Your task to perform on an android device: delete location history Image 0: 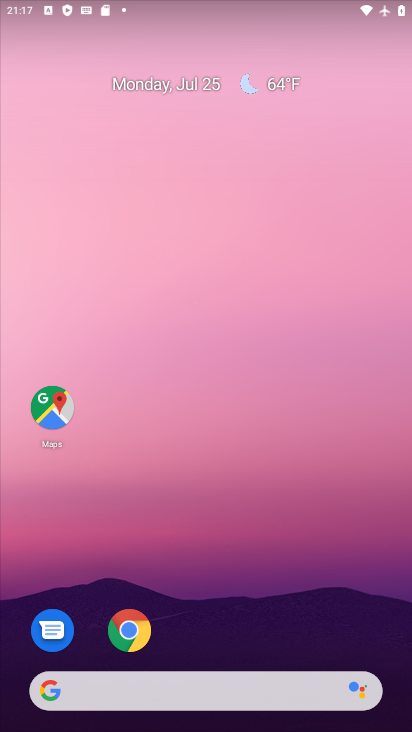
Step 0: click (57, 410)
Your task to perform on an android device: delete location history Image 1: 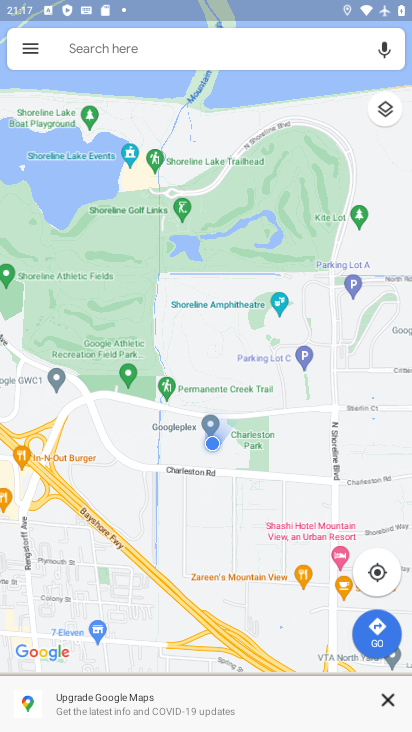
Step 1: click (28, 46)
Your task to perform on an android device: delete location history Image 2: 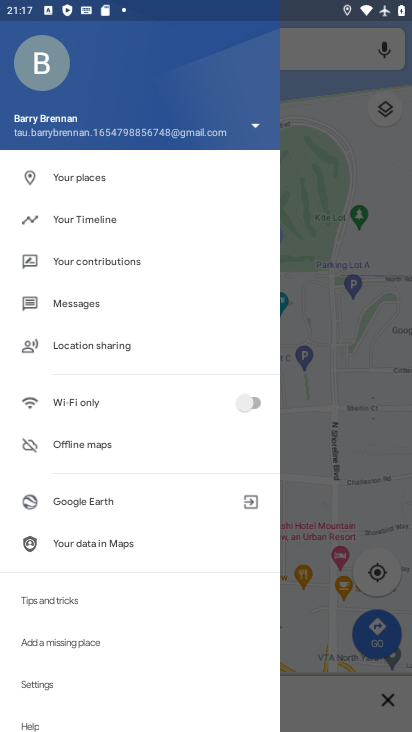
Step 2: click (31, 683)
Your task to perform on an android device: delete location history Image 3: 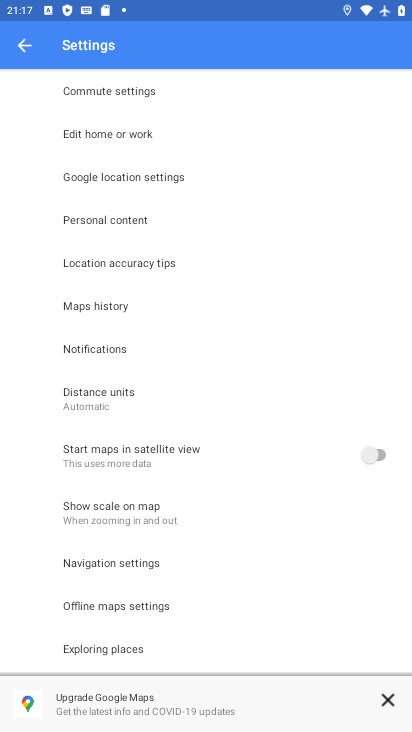
Step 3: click (105, 215)
Your task to perform on an android device: delete location history Image 4: 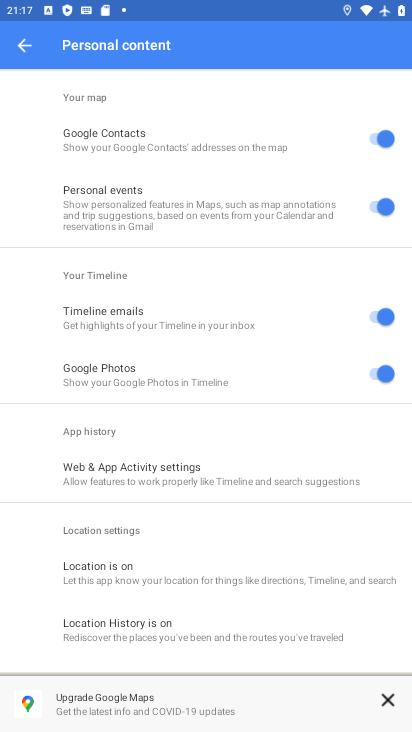
Step 4: drag from (204, 582) to (217, 239)
Your task to perform on an android device: delete location history Image 5: 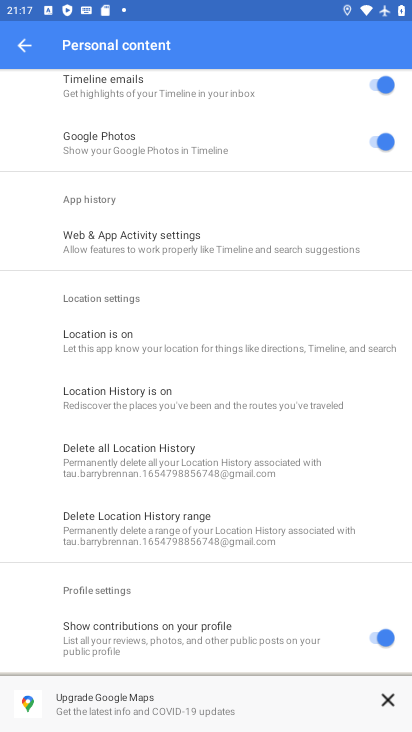
Step 5: click (123, 456)
Your task to perform on an android device: delete location history Image 6: 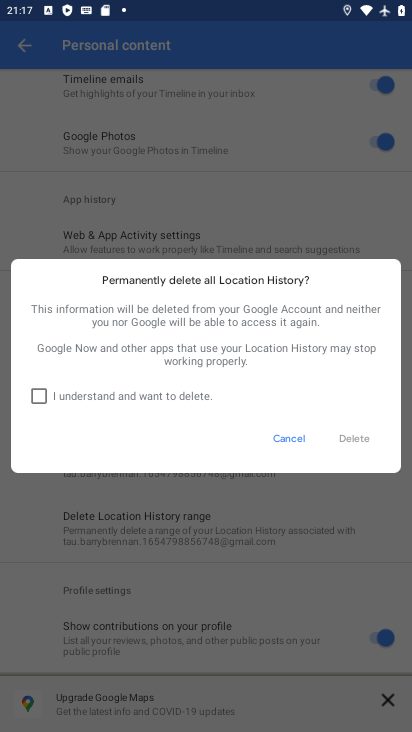
Step 6: click (40, 395)
Your task to perform on an android device: delete location history Image 7: 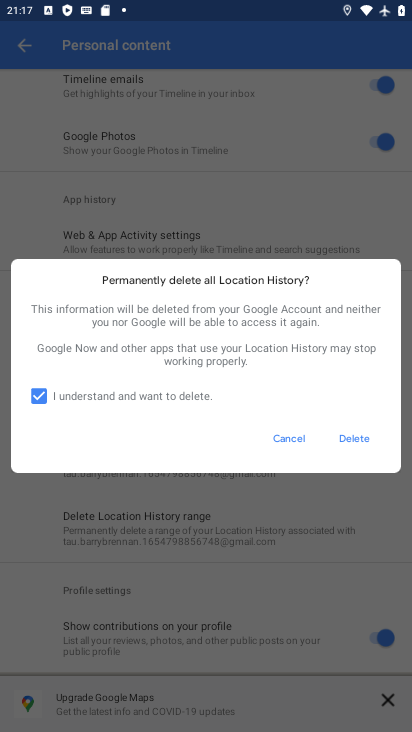
Step 7: click (349, 433)
Your task to perform on an android device: delete location history Image 8: 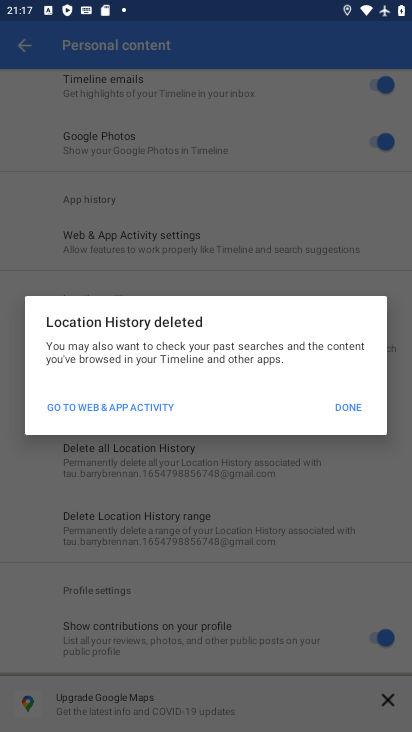
Step 8: click (351, 406)
Your task to perform on an android device: delete location history Image 9: 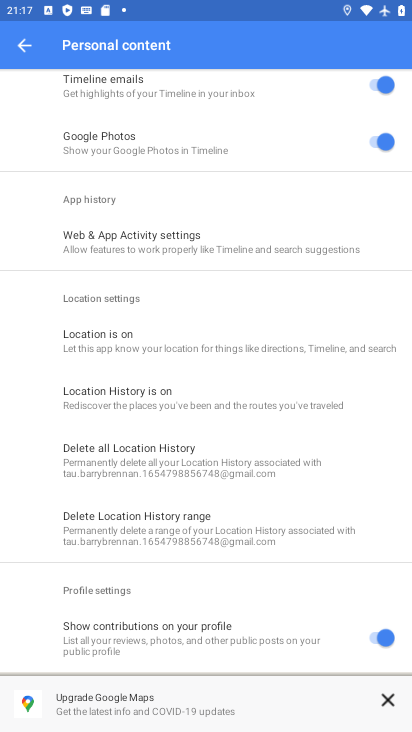
Step 9: task complete